Your task to perform on an android device: turn vacation reply on in the gmail app Image 0: 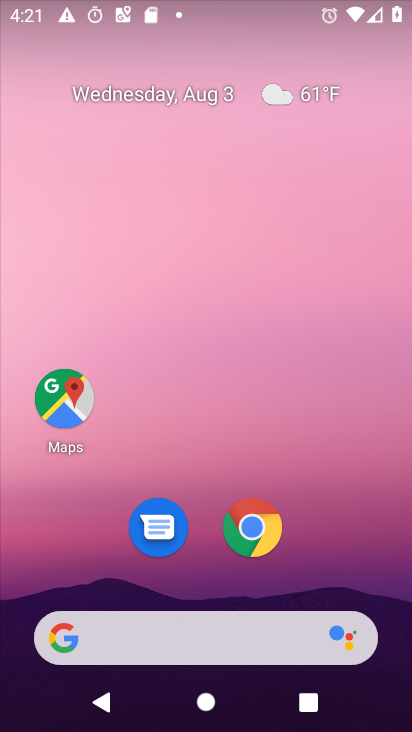
Step 0: drag from (359, 535) to (380, 50)
Your task to perform on an android device: turn vacation reply on in the gmail app Image 1: 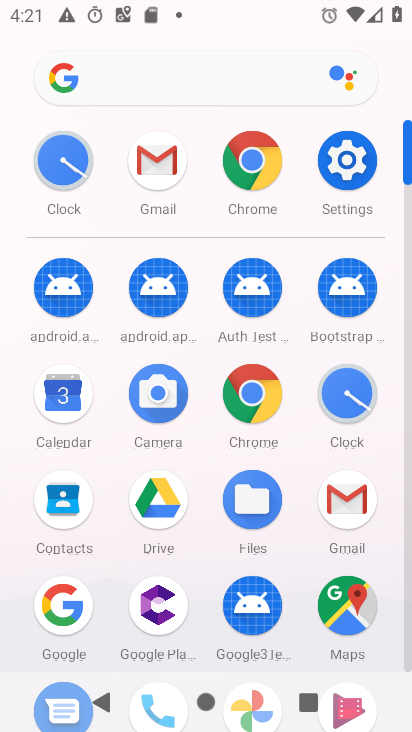
Step 1: click (157, 161)
Your task to perform on an android device: turn vacation reply on in the gmail app Image 2: 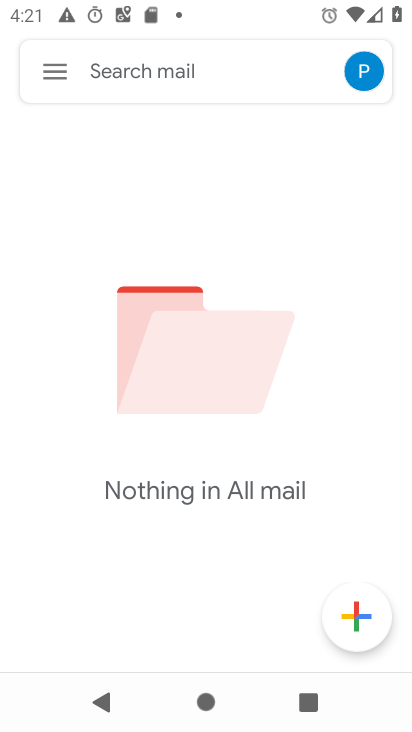
Step 2: click (46, 54)
Your task to perform on an android device: turn vacation reply on in the gmail app Image 3: 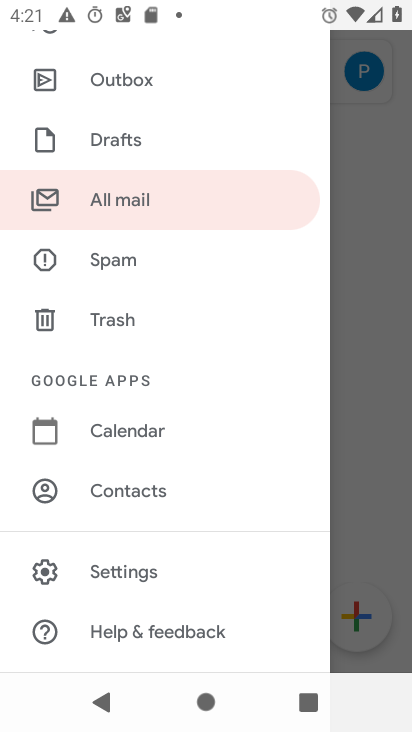
Step 3: click (145, 562)
Your task to perform on an android device: turn vacation reply on in the gmail app Image 4: 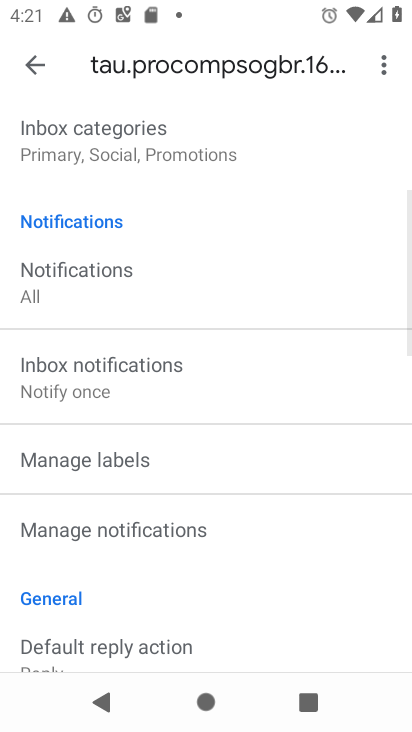
Step 4: drag from (228, 605) to (322, 148)
Your task to perform on an android device: turn vacation reply on in the gmail app Image 5: 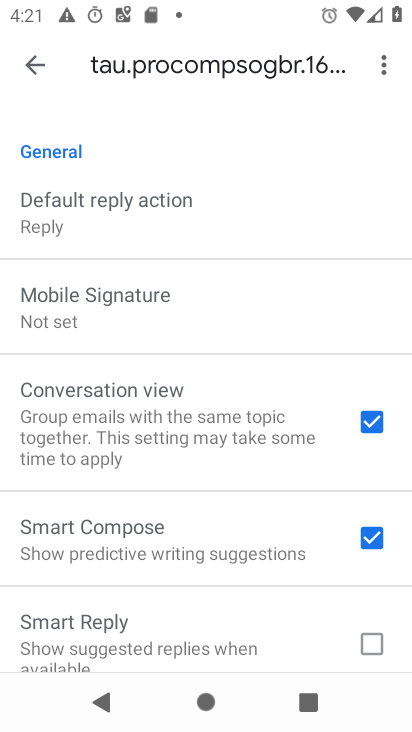
Step 5: drag from (197, 511) to (286, 135)
Your task to perform on an android device: turn vacation reply on in the gmail app Image 6: 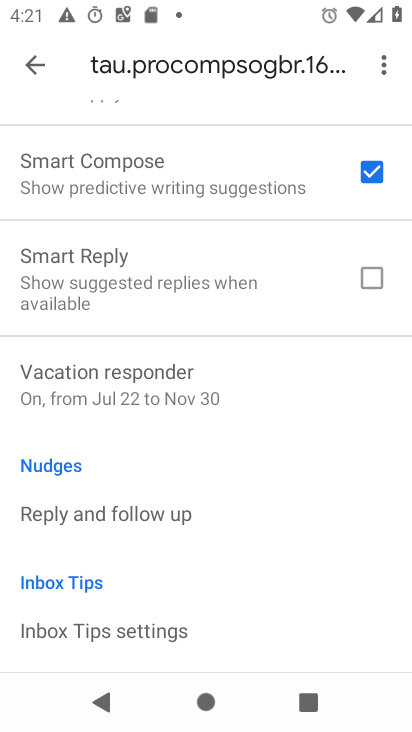
Step 6: click (202, 394)
Your task to perform on an android device: turn vacation reply on in the gmail app Image 7: 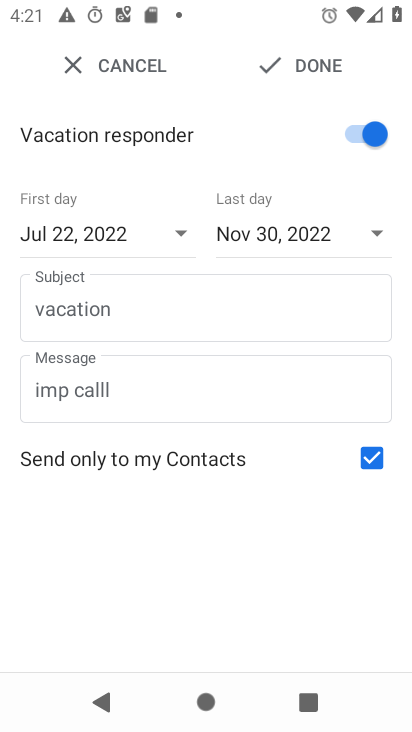
Step 7: task complete